Your task to perform on an android device: manage bookmarks in the chrome app Image 0: 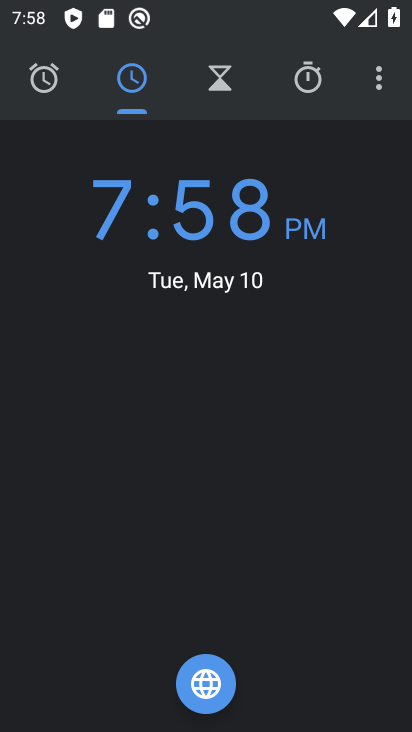
Step 0: click (387, 80)
Your task to perform on an android device: manage bookmarks in the chrome app Image 1: 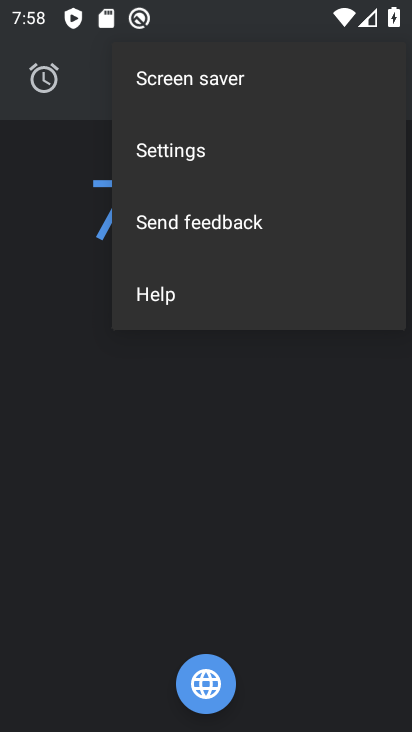
Step 1: click (191, 153)
Your task to perform on an android device: manage bookmarks in the chrome app Image 2: 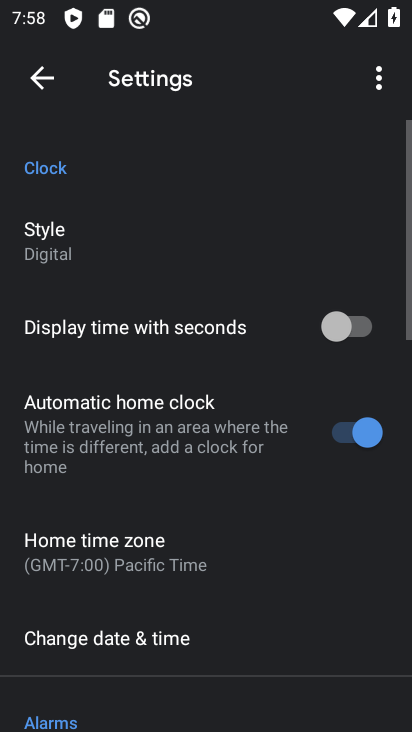
Step 2: drag from (321, 529) to (242, 192)
Your task to perform on an android device: manage bookmarks in the chrome app Image 3: 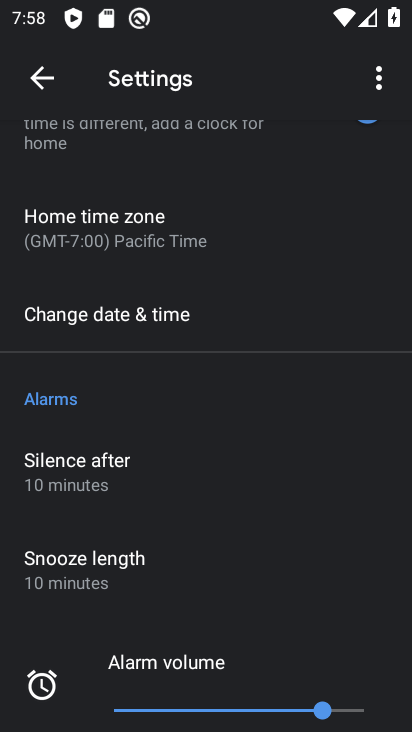
Step 3: drag from (279, 628) to (199, 268)
Your task to perform on an android device: manage bookmarks in the chrome app Image 4: 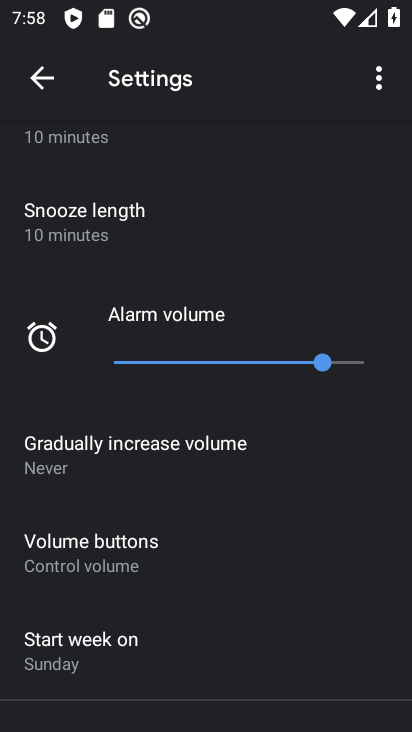
Step 4: press home button
Your task to perform on an android device: manage bookmarks in the chrome app Image 5: 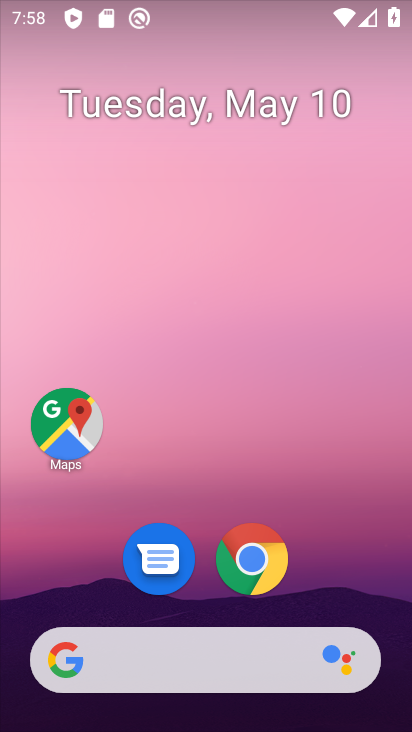
Step 5: click (254, 584)
Your task to perform on an android device: manage bookmarks in the chrome app Image 6: 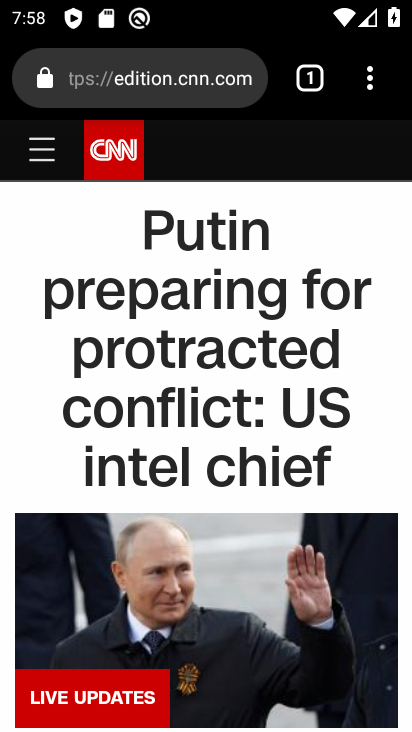
Step 6: click (385, 73)
Your task to perform on an android device: manage bookmarks in the chrome app Image 7: 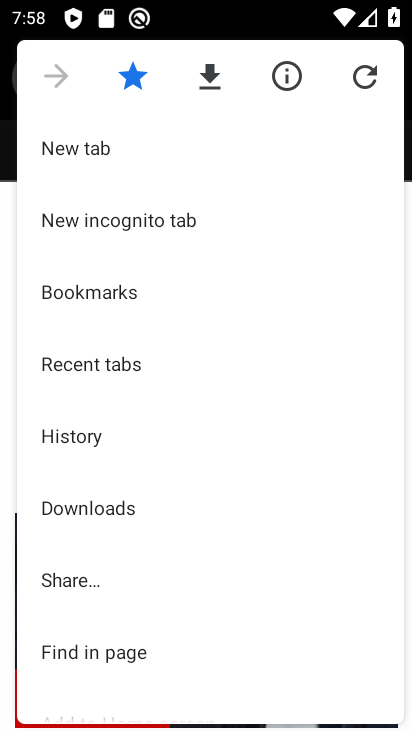
Step 7: drag from (307, 575) to (205, 305)
Your task to perform on an android device: manage bookmarks in the chrome app Image 8: 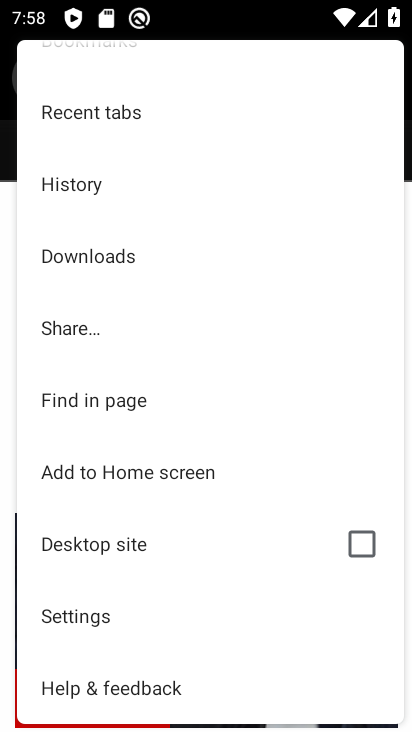
Step 8: drag from (197, 383) to (229, 587)
Your task to perform on an android device: manage bookmarks in the chrome app Image 9: 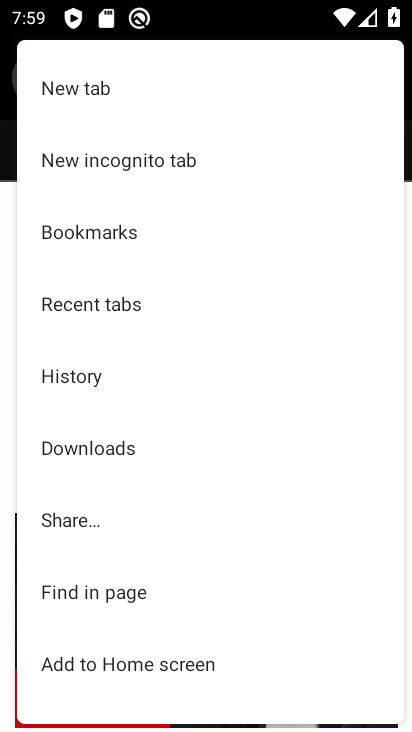
Step 9: click (94, 239)
Your task to perform on an android device: manage bookmarks in the chrome app Image 10: 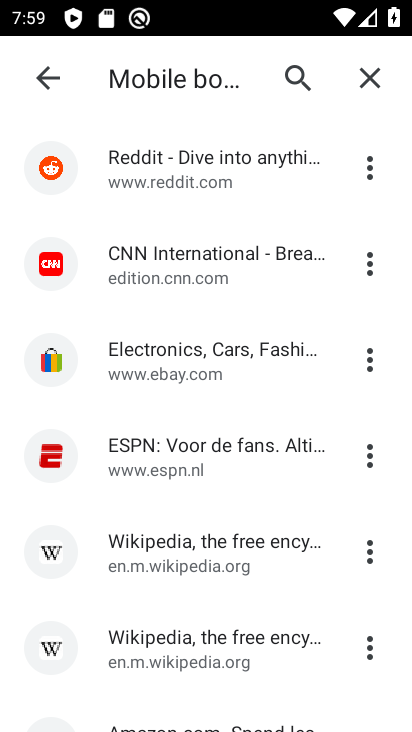
Step 10: click (371, 357)
Your task to perform on an android device: manage bookmarks in the chrome app Image 11: 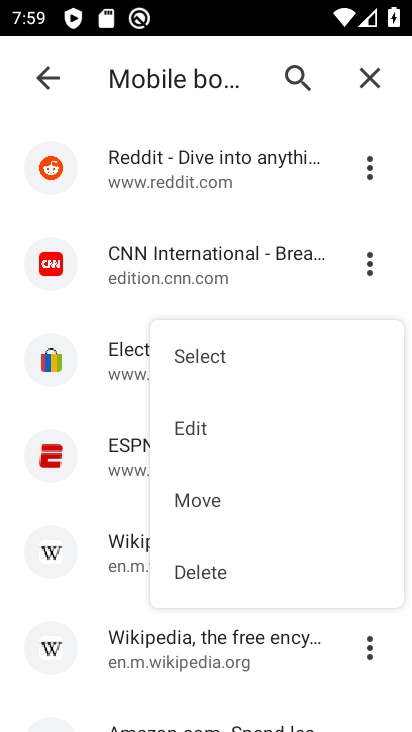
Step 11: click (198, 500)
Your task to perform on an android device: manage bookmarks in the chrome app Image 12: 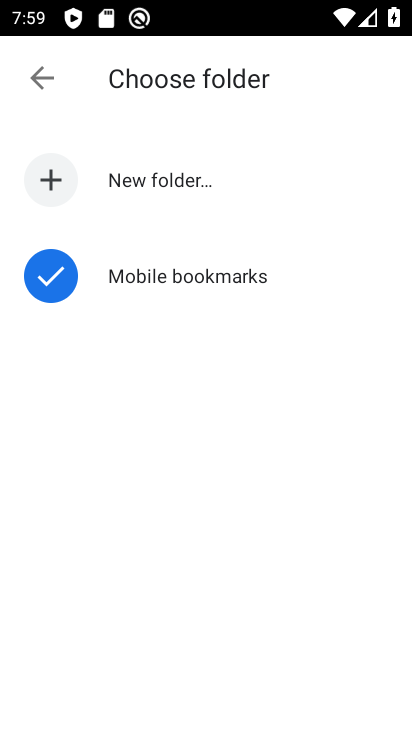
Step 12: click (229, 274)
Your task to perform on an android device: manage bookmarks in the chrome app Image 13: 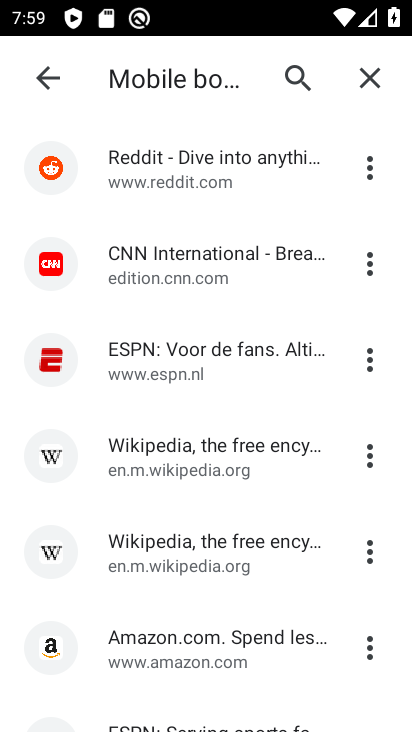
Step 13: click (364, 267)
Your task to perform on an android device: manage bookmarks in the chrome app Image 14: 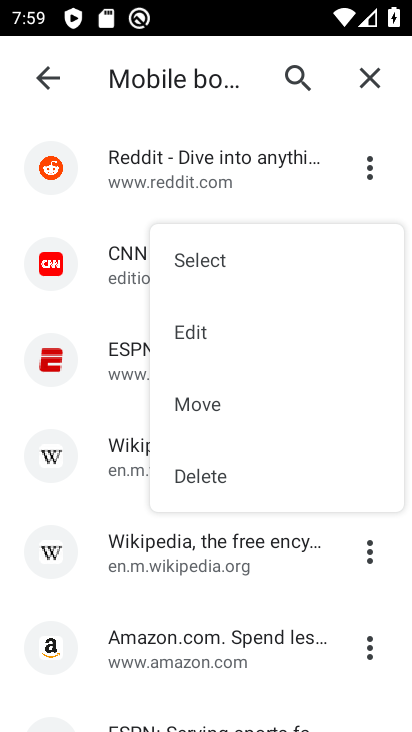
Step 14: click (236, 271)
Your task to perform on an android device: manage bookmarks in the chrome app Image 15: 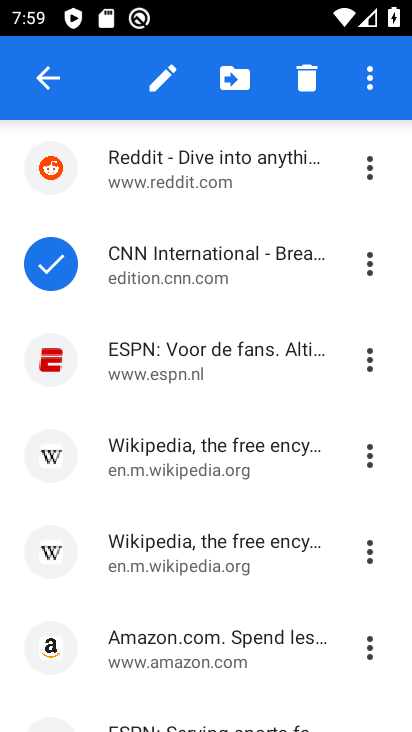
Step 15: click (43, 354)
Your task to perform on an android device: manage bookmarks in the chrome app Image 16: 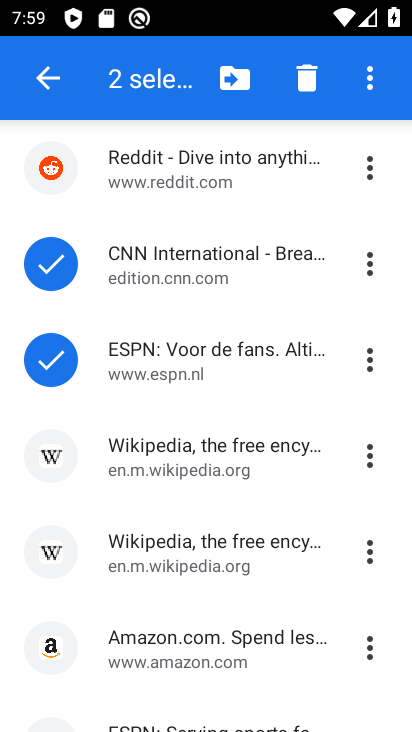
Step 16: click (305, 98)
Your task to perform on an android device: manage bookmarks in the chrome app Image 17: 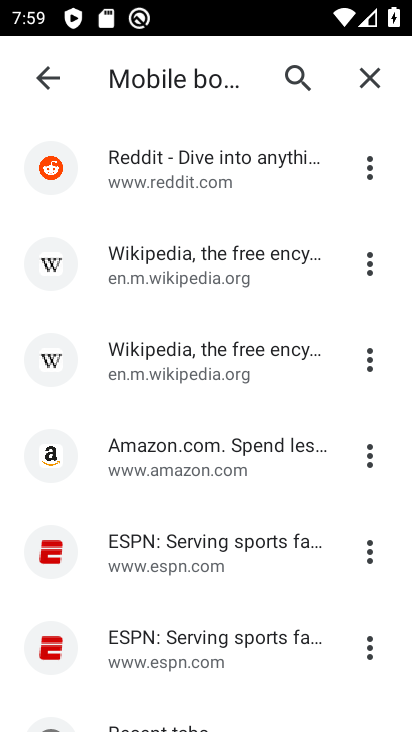
Step 17: task complete